Your task to perform on an android device: Open sound settings Image 0: 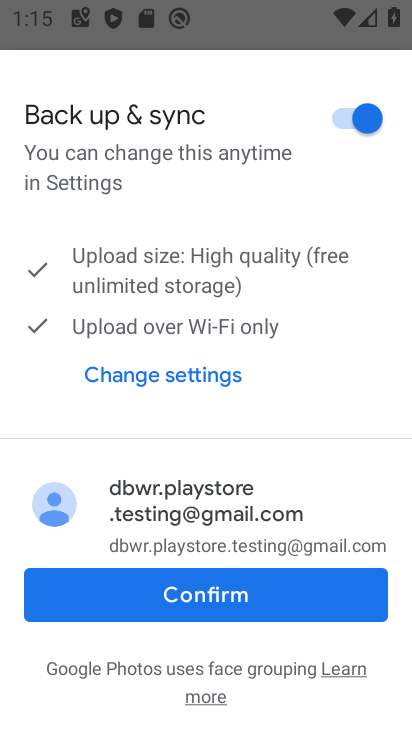
Step 0: press home button
Your task to perform on an android device: Open sound settings Image 1: 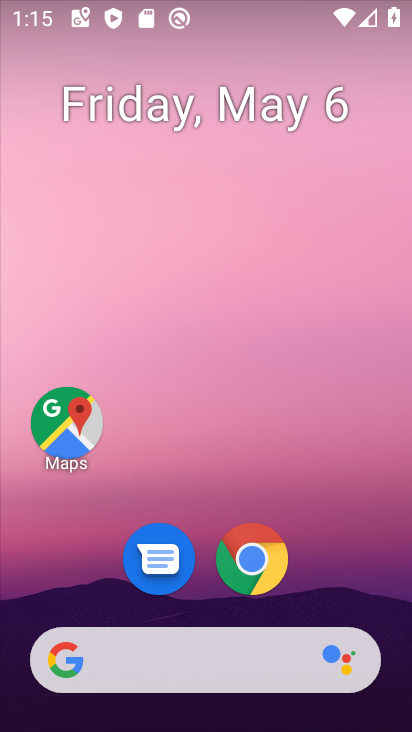
Step 1: drag from (170, 652) to (337, 42)
Your task to perform on an android device: Open sound settings Image 2: 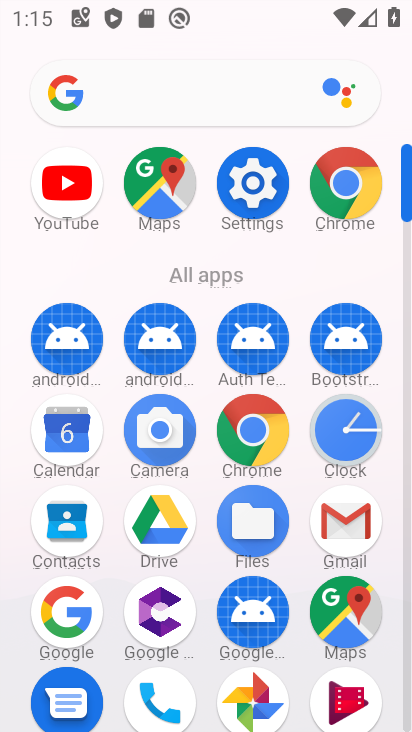
Step 2: click (258, 179)
Your task to perform on an android device: Open sound settings Image 3: 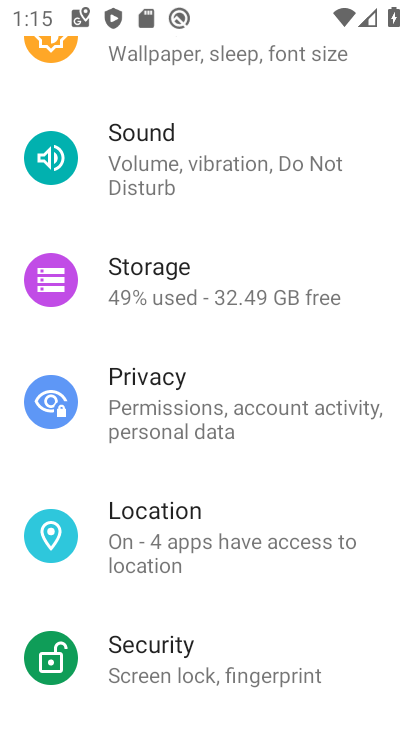
Step 3: click (162, 164)
Your task to perform on an android device: Open sound settings Image 4: 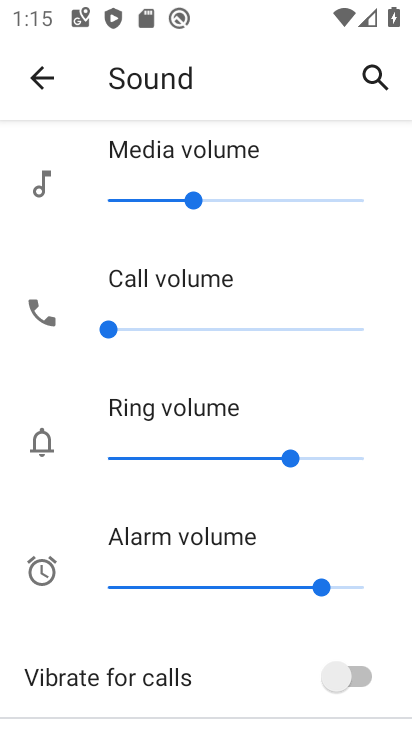
Step 4: task complete